Your task to perform on an android device: Open Google Maps and go to "Timeline" Image 0: 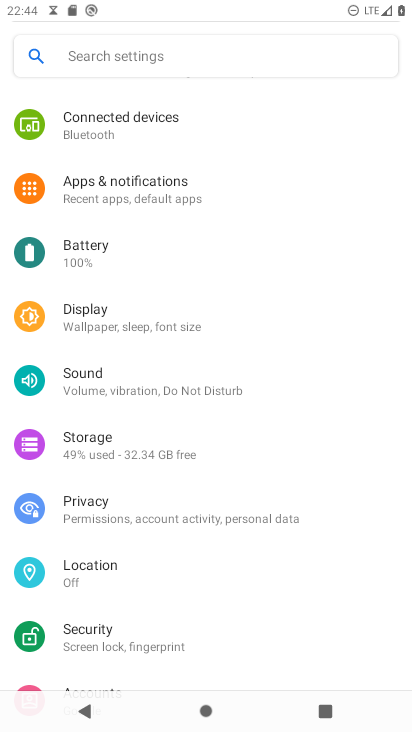
Step 0: press home button
Your task to perform on an android device: Open Google Maps and go to "Timeline" Image 1: 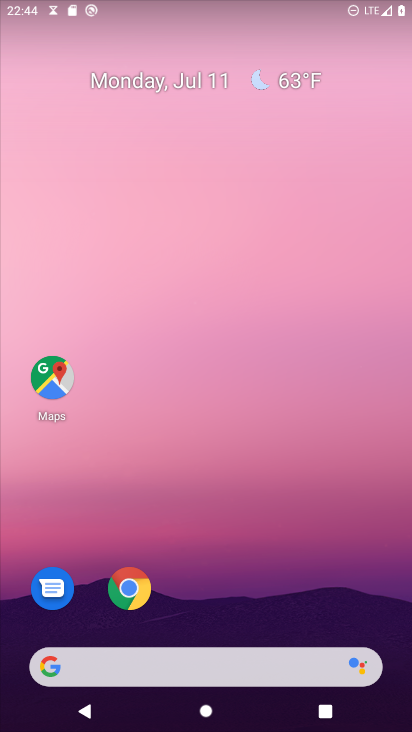
Step 1: drag from (236, 628) to (348, 51)
Your task to perform on an android device: Open Google Maps and go to "Timeline" Image 2: 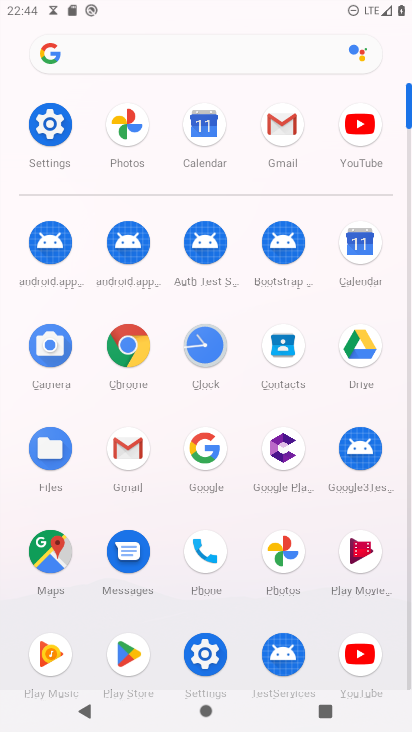
Step 2: click (52, 567)
Your task to perform on an android device: Open Google Maps and go to "Timeline" Image 3: 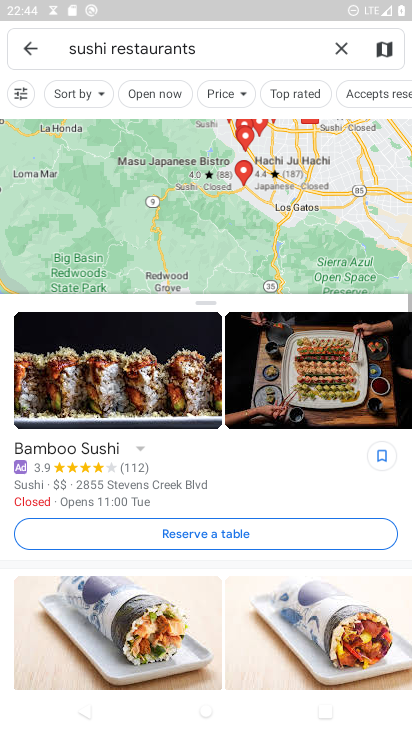
Step 3: press back button
Your task to perform on an android device: Open Google Maps and go to "Timeline" Image 4: 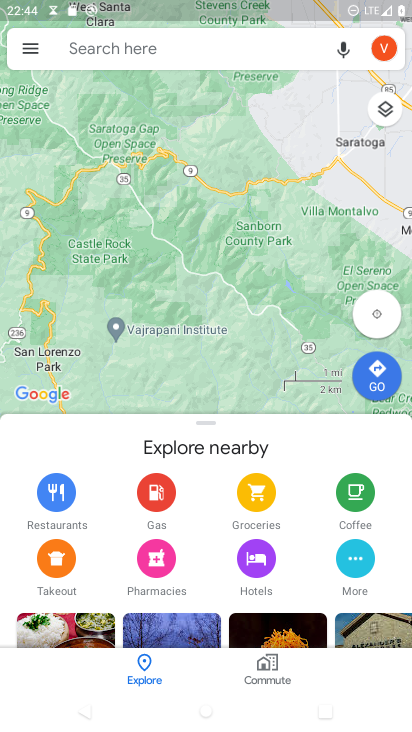
Step 4: click (25, 59)
Your task to perform on an android device: Open Google Maps and go to "Timeline" Image 5: 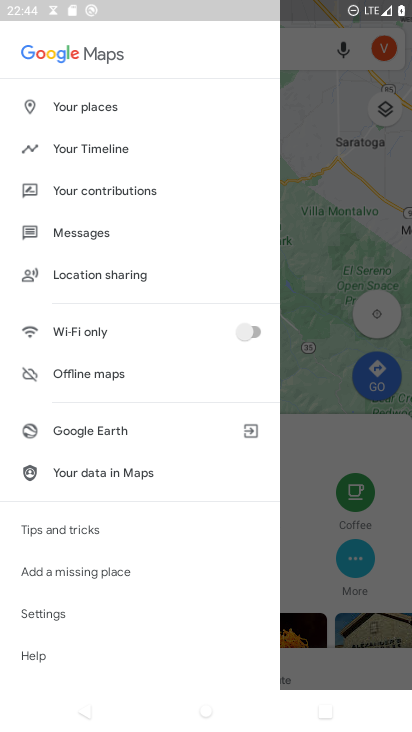
Step 5: click (99, 143)
Your task to perform on an android device: Open Google Maps and go to "Timeline" Image 6: 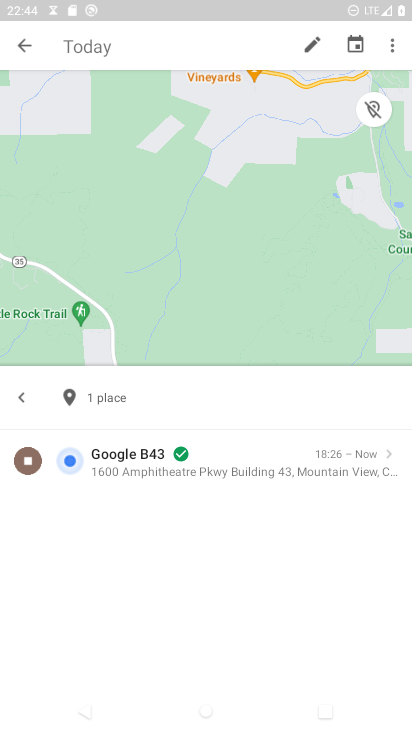
Step 6: task complete